Your task to perform on an android device: Go to notification settings Image 0: 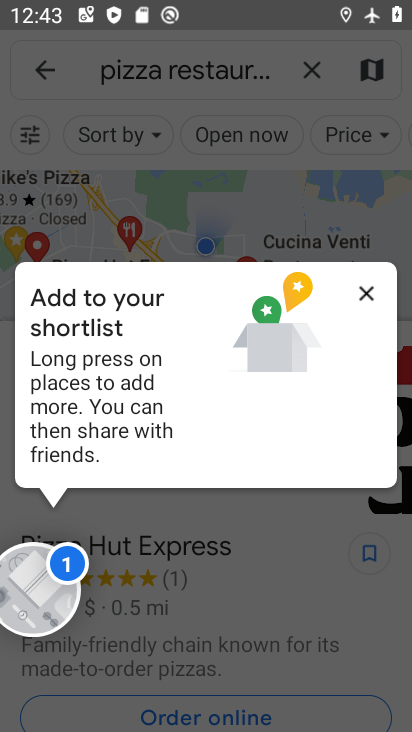
Step 0: press home button
Your task to perform on an android device: Go to notification settings Image 1: 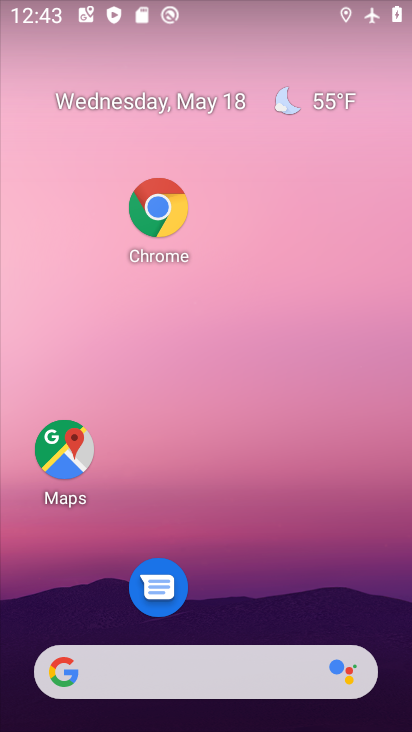
Step 1: drag from (225, 597) to (266, 73)
Your task to perform on an android device: Go to notification settings Image 2: 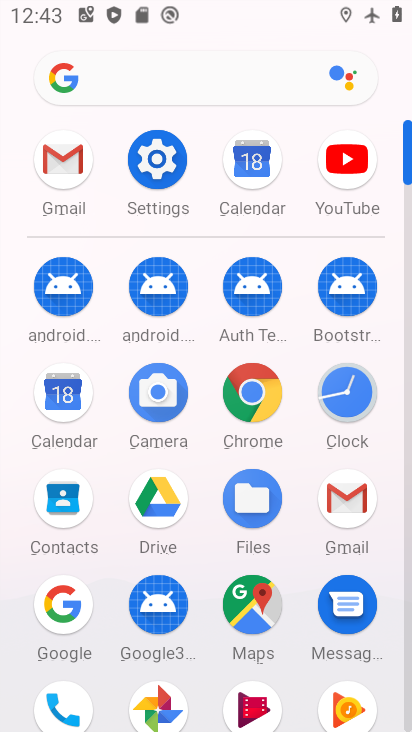
Step 2: click (156, 149)
Your task to perform on an android device: Go to notification settings Image 3: 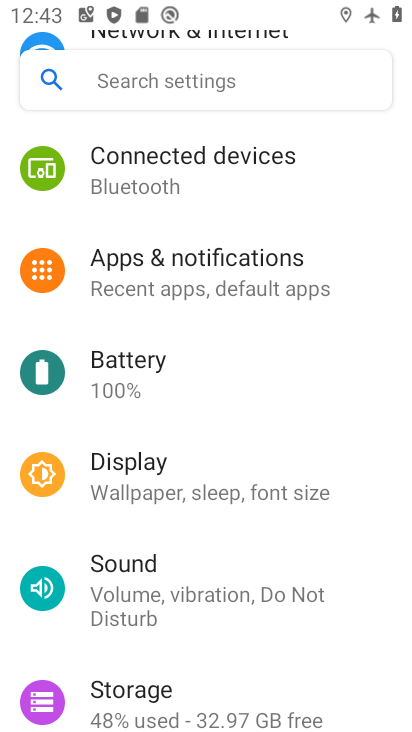
Step 3: click (165, 283)
Your task to perform on an android device: Go to notification settings Image 4: 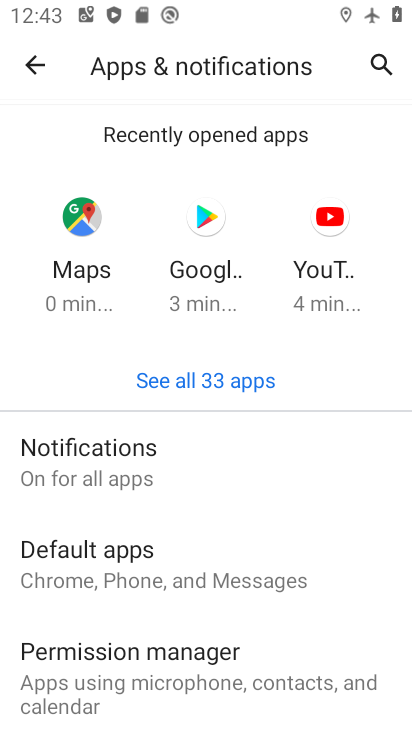
Step 4: click (79, 454)
Your task to perform on an android device: Go to notification settings Image 5: 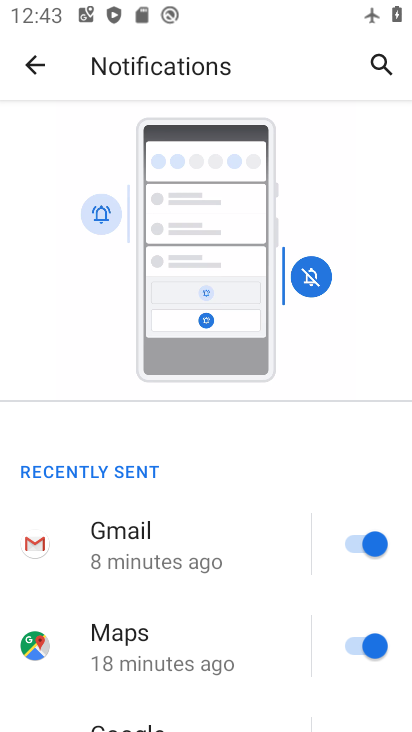
Step 5: task complete